Your task to perform on an android device: check battery use Image 0: 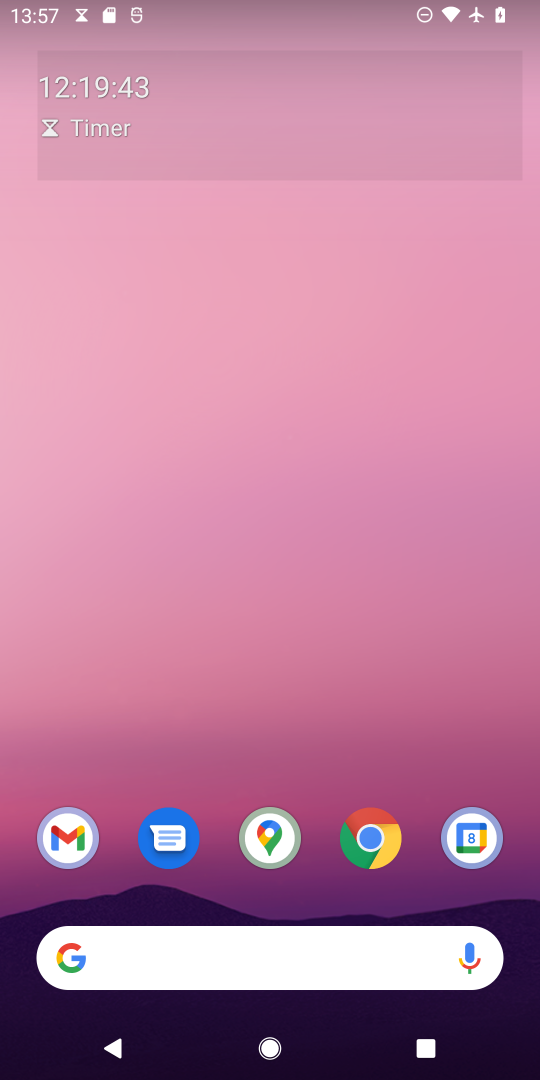
Step 0: press home button
Your task to perform on an android device: check battery use Image 1: 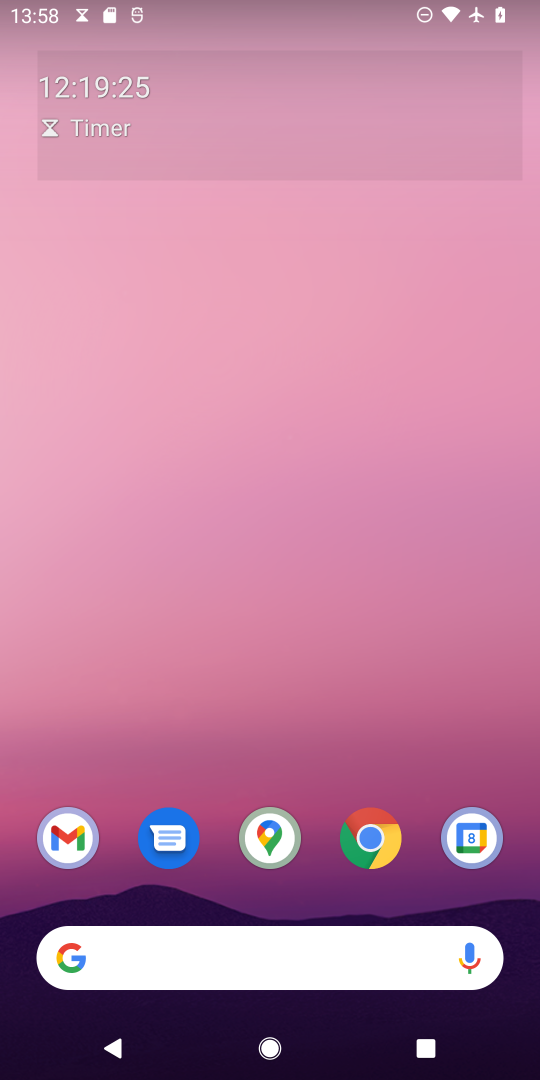
Step 1: drag from (220, 899) to (267, 218)
Your task to perform on an android device: check battery use Image 2: 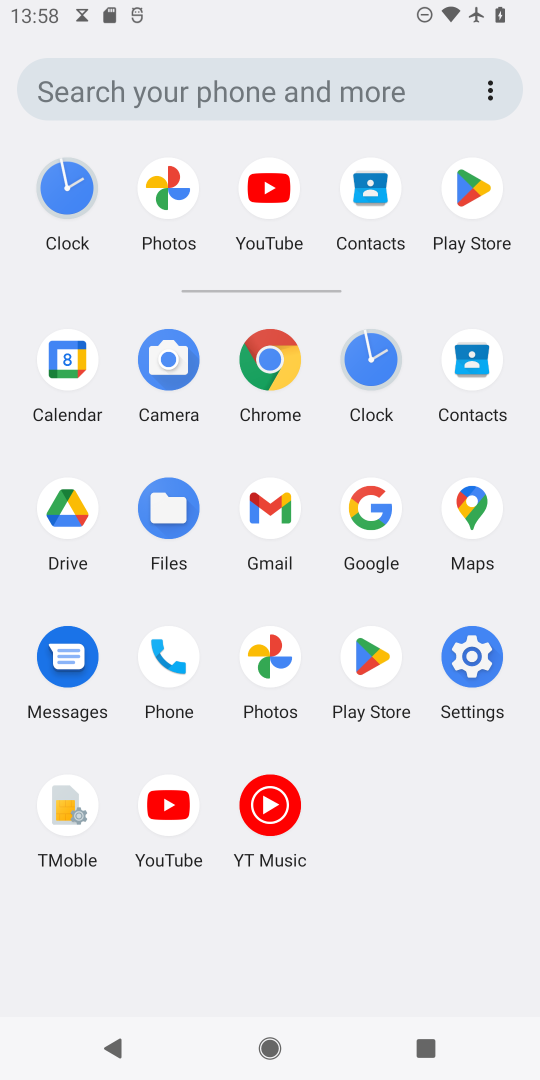
Step 2: click (478, 648)
Your task to perform on an android device: check battery use Image 3: 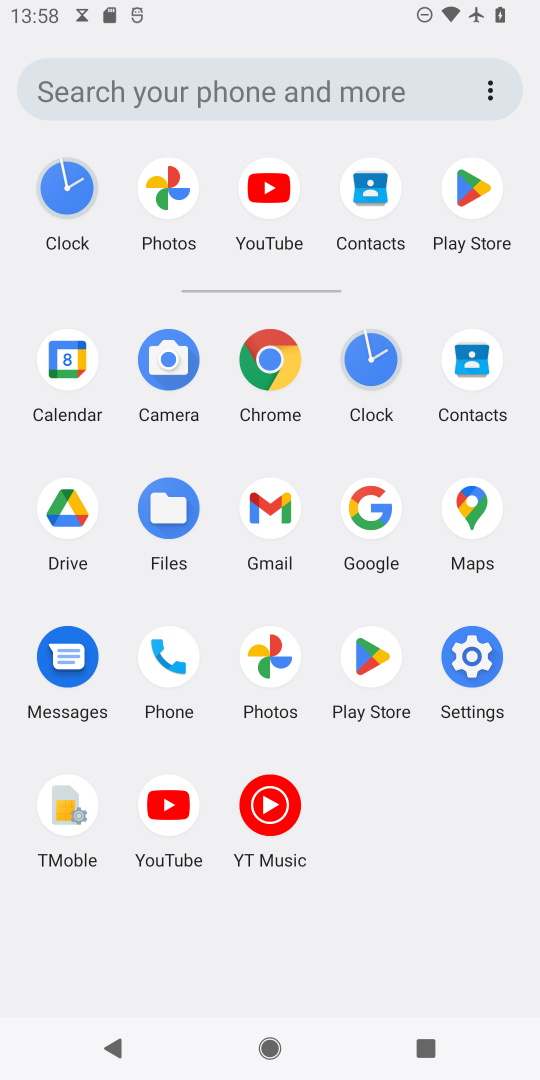
Step 3: click (472, 667)
Your task to perform on an android device: check battery use Image 4: 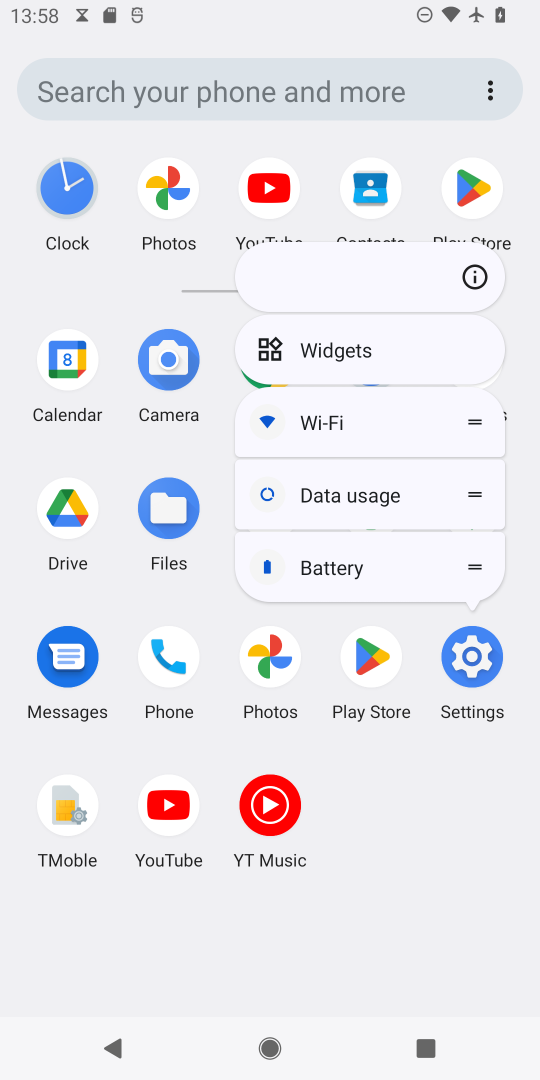
Step 4: click (446, 651)
Your task to perform on an android device: check battery use Image 5: 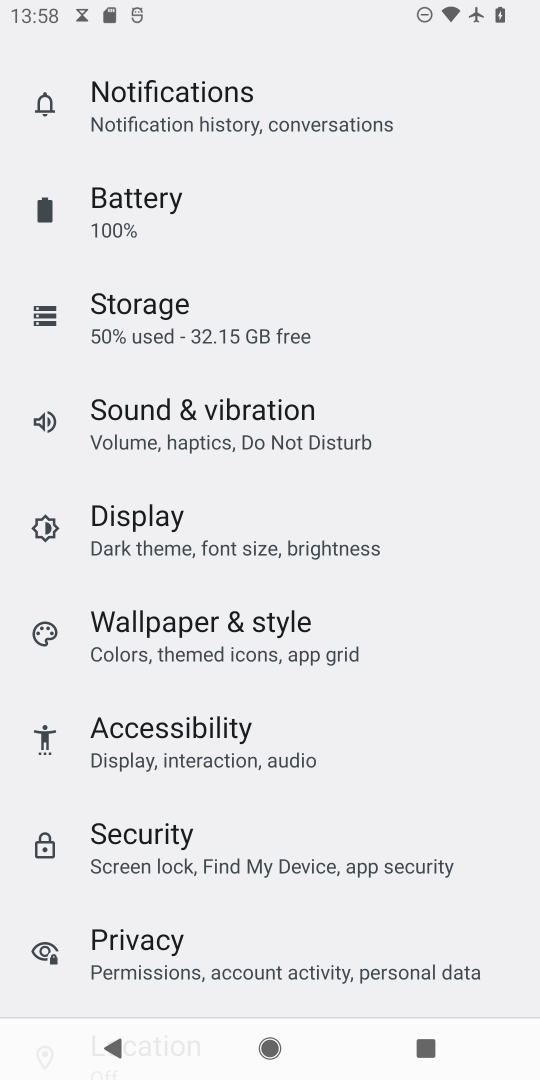
Step 5: click (111, 213)
Your task to perform on an android device: check battery use Image 6: 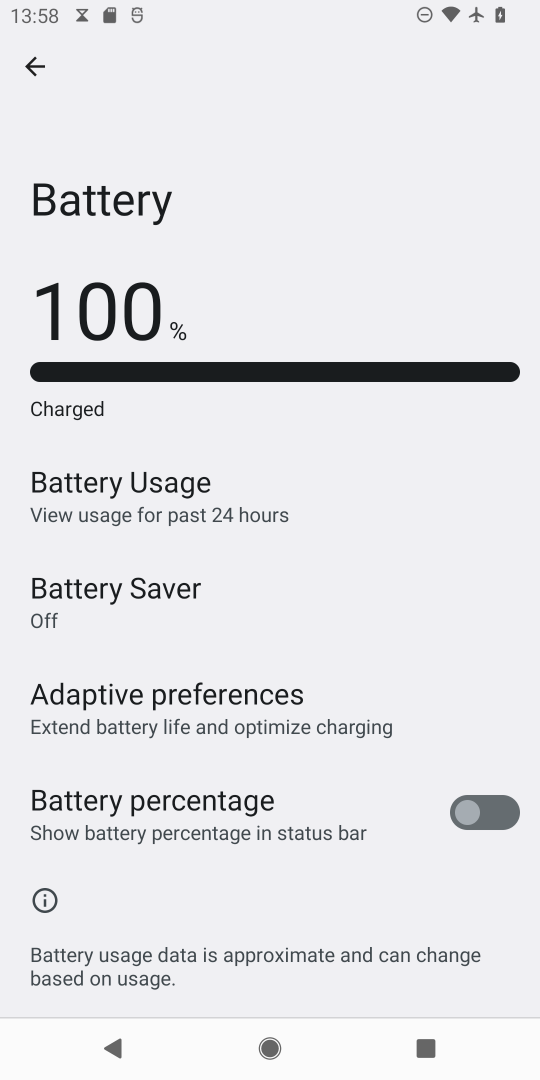
Step 6: click (127, 484)
Your task to perform on an android device: check battery use Image 7: 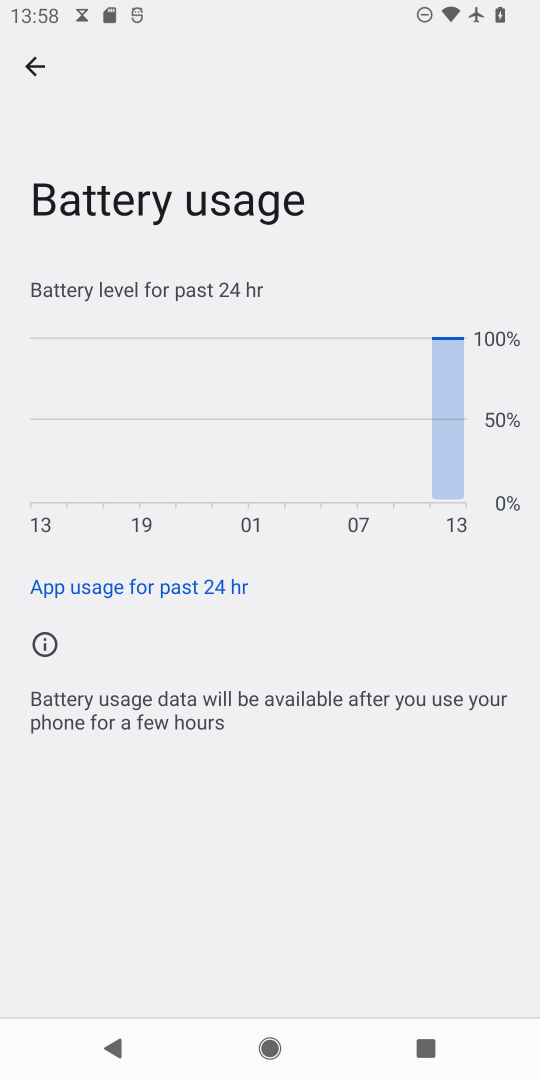
Step 7: task complete